Your task to perform on an android device: Show me recent news Image 0: 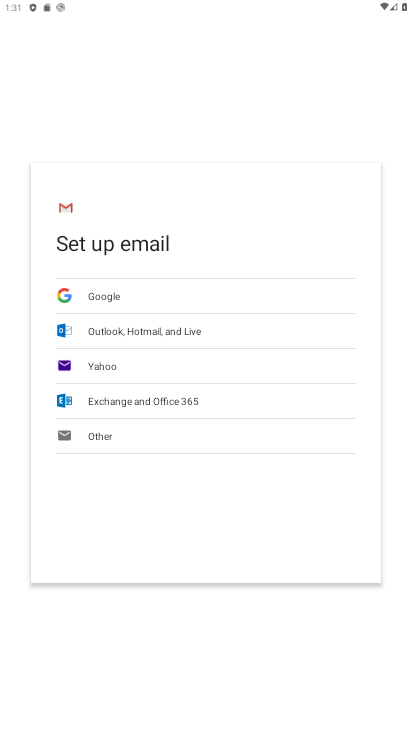
Step 0: press home button
Your task to perform on an android device: Show me recent news Image 1: 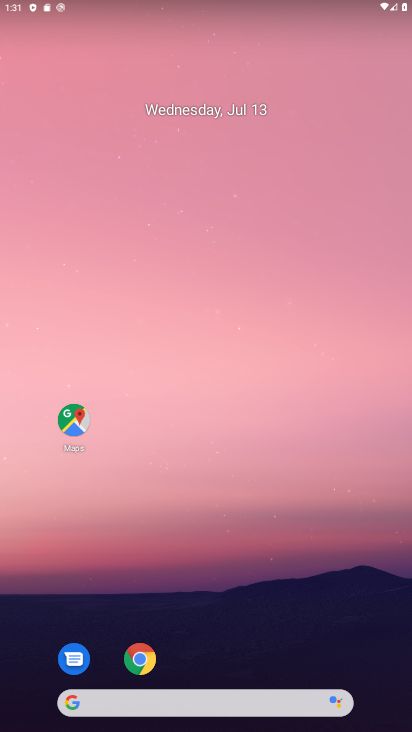
Step 1: task complete